Your task to perform on an android device: Is it going to rain tomorrow? Image 0: 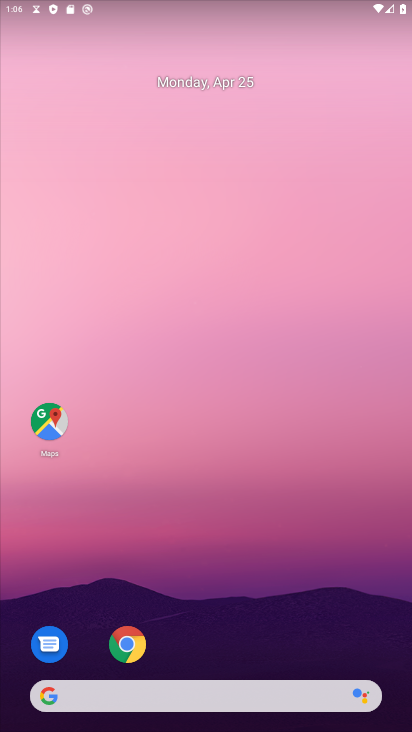
Step 0: click (202, 698)
Your task to perform on an android device: Is it going to rain tomorrow? Image 1: 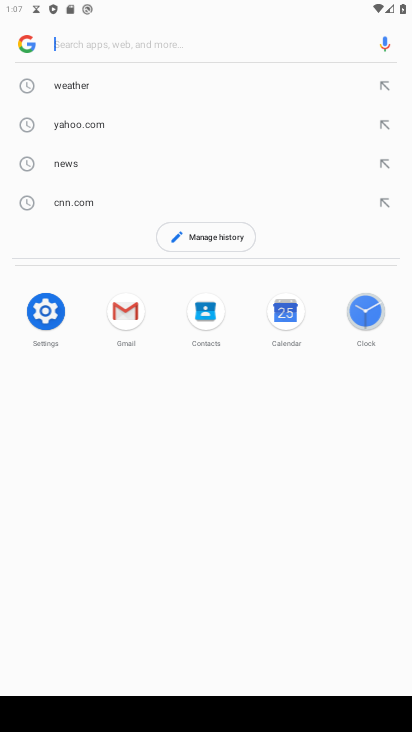
Step 1: click (78, 88)
Your task to perform on an android device: Is it going to rain tomorrow? Image 2: 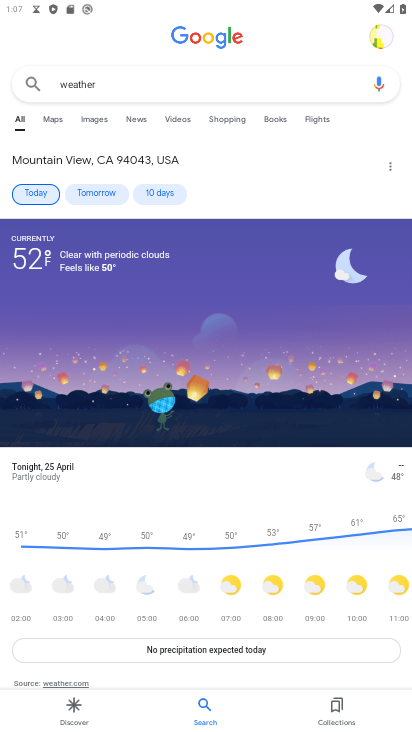
Step 2: click (95, 198)
Your task to perform on an android device: Is it going to rain tomorrow? Image 3: 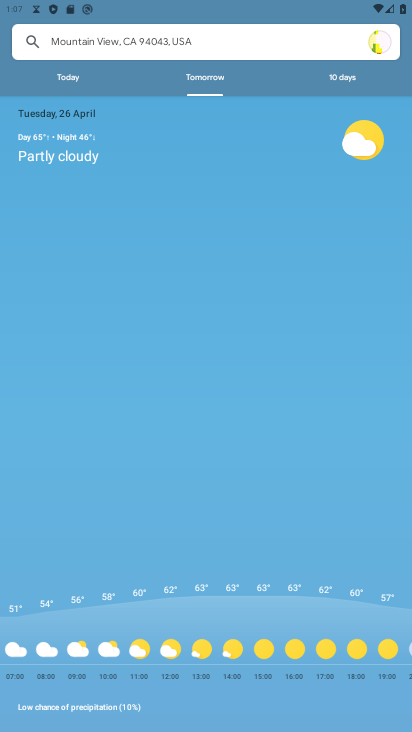
Step 3: task complete